Your task to perform on an android device: Open the Play Movies app and select the watchlist tab. Image 0: 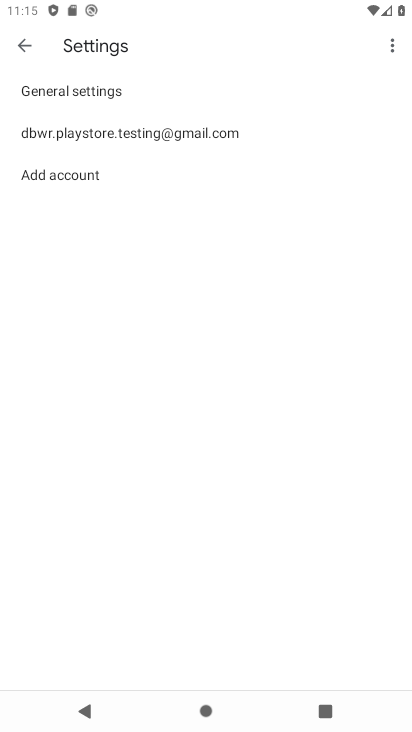
Step 0: press home button
Your task to perform on an android device: Open the Play Movies app and select the watchlist tab. Image 1: 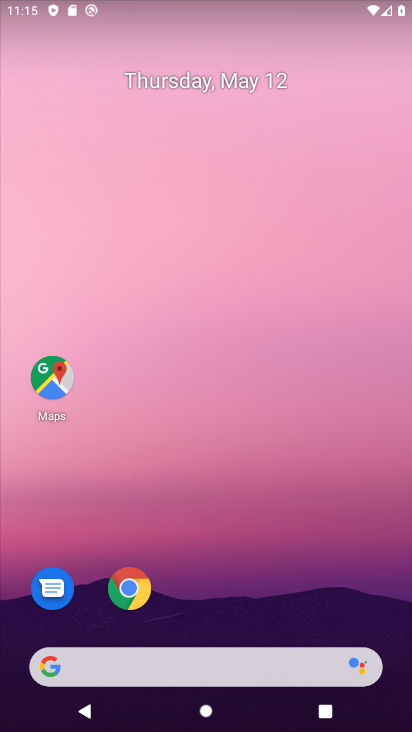
Step 1: drag from (195, 594) to (213, 181)
Your task to perform on an android device: Open the Play Movies app and select the watchlist tab. Image 2: 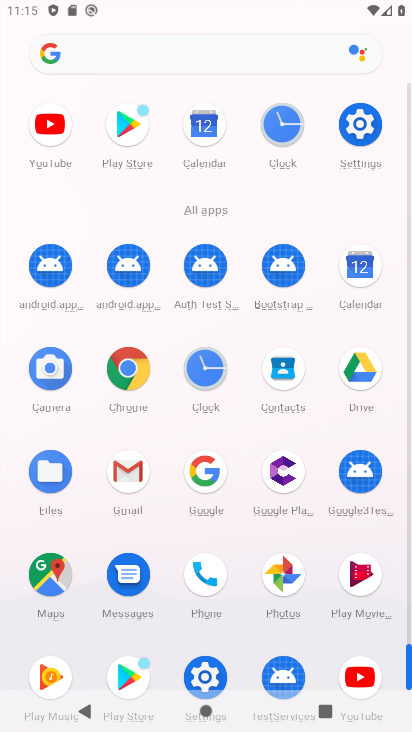
Step 2: click (356, 584)
Your task to perform on an android device: Open the Play Movies app and select the watchlist tab. Image 3: 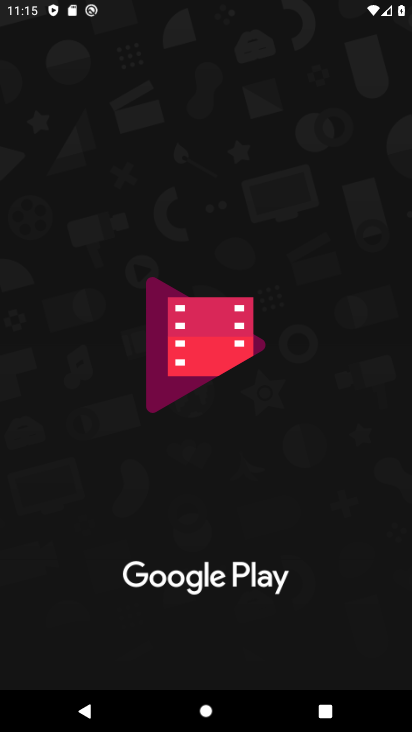
Step 3: drag from (233, 587) to (286, 251)
Your task to perform on an android device: Open the Play Movies app and select the watchlist tab. Image 4: 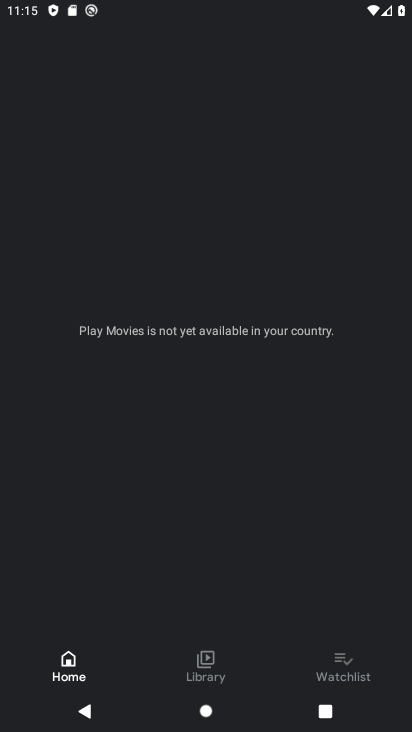
Step 4: click (343, 667)
Your task to perform on an android device: Open the Play Movies app and select the watchlist tab. Image 5: 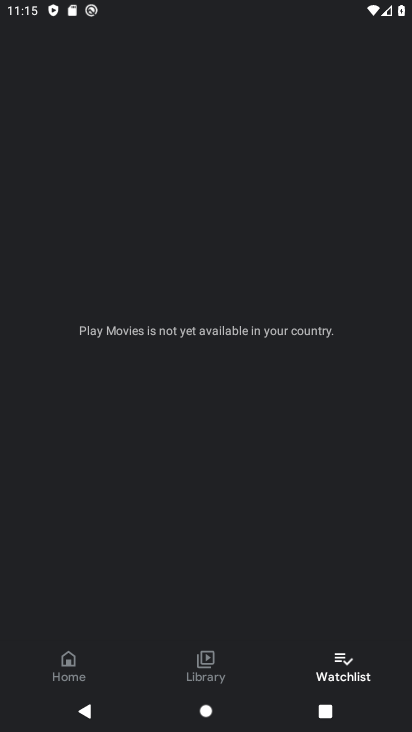
Step 5: task complete